Your task to perform on an android device: open sync settings in chrome Image 0: 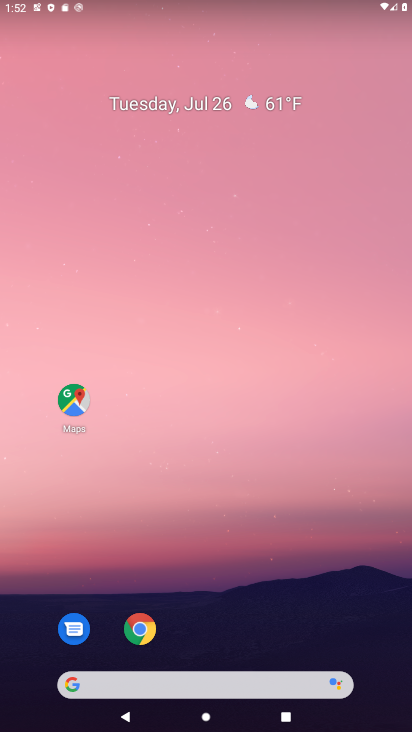
Step 0: click (132, 644)
Your task to perform on an android device: open sync settings in chrome Image 1: 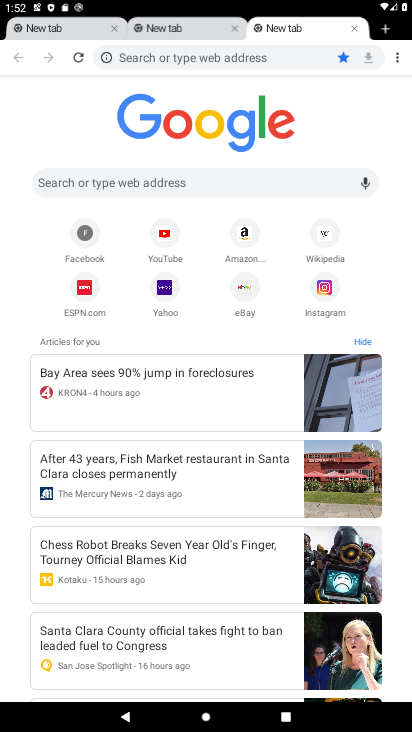
Step 1: click (401, 61)
Your task to perform on an android device: open sync settings in chrome Image 2: 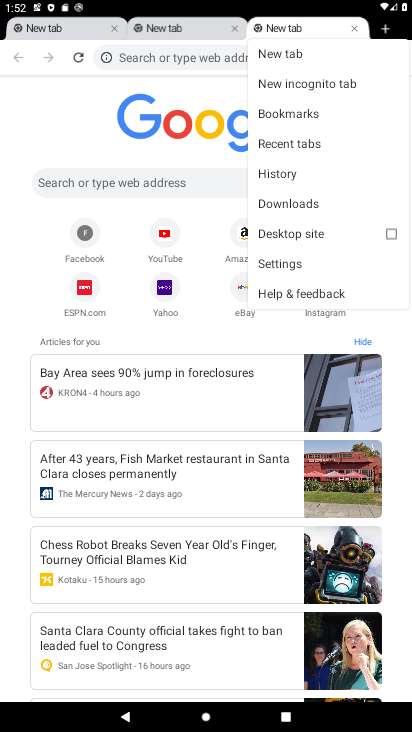
Step 2: click (265, 266)
Your task to perform on an android device: open sync settings in chrome Image 3: 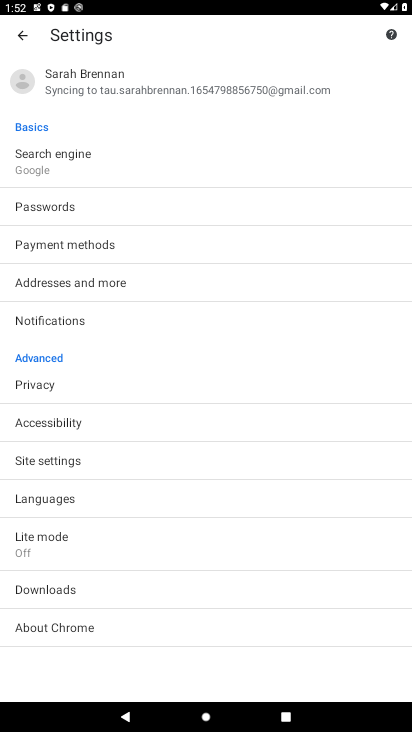
Step 3: click (100, 95)
Your task to perform on an android device: open sync settings in chrome Image 4: 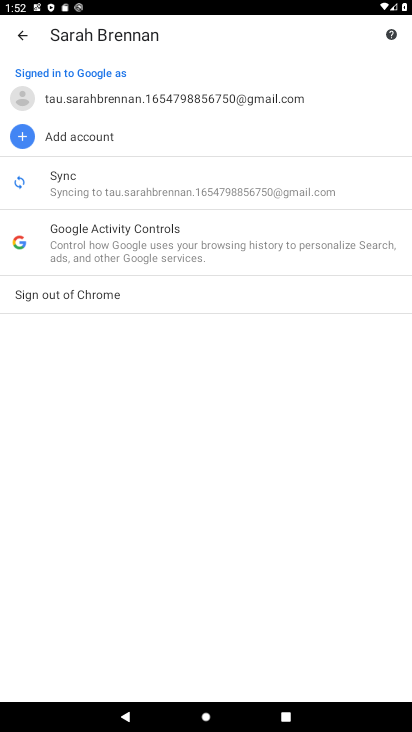
Step 4: click (152, 178)
Your task to perform on an android device: open sync settings in chrome Image 5: 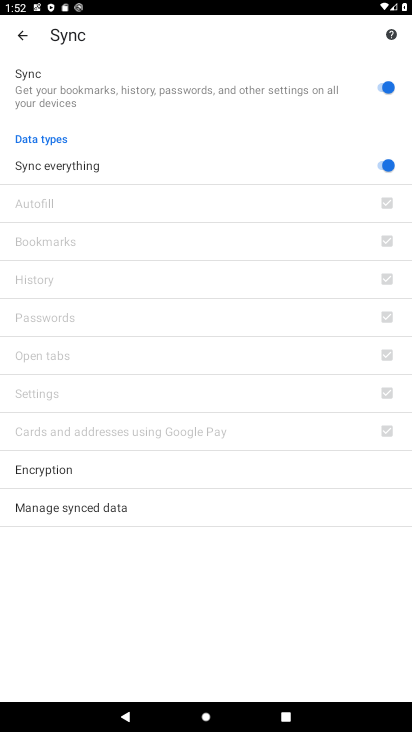
Step 5: task complete